Your task to perform on an android device: open chrome privacy settings Image 0: 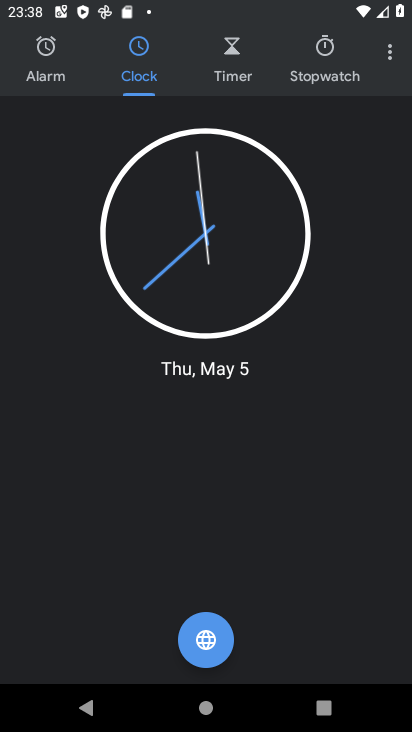
Step 0: press home button
Your task to perform on an android device: open chrome privacy settings Image 1: 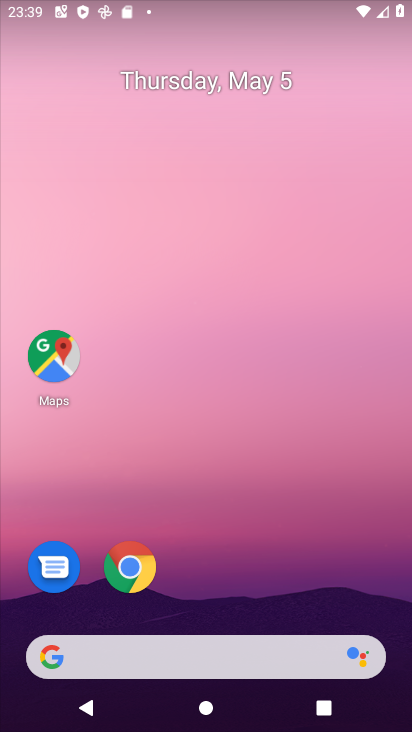
Step 1: click (130, 560)
Your task to perform on an android device: open chrome privacy settings Image 2: 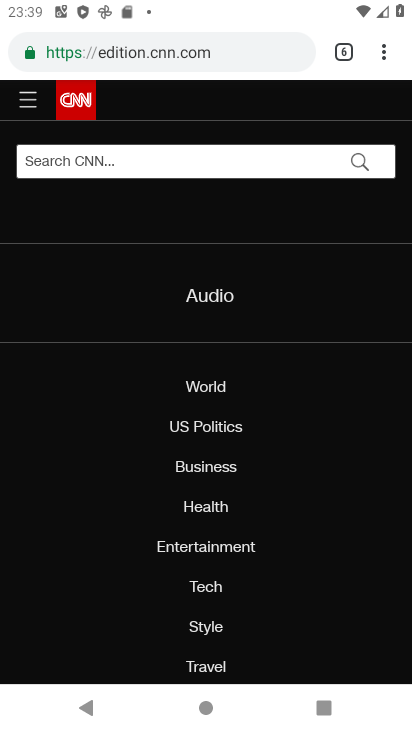
Step 2: click (380, 46)
Your task to perform on an android device: open chrome privacy settings Image 3: 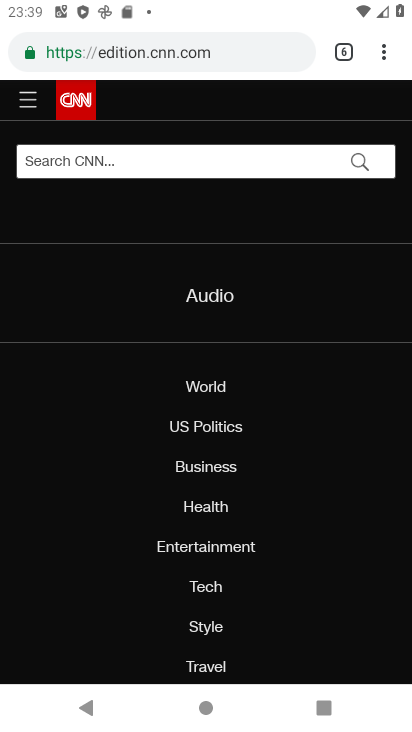
Step 3: click (378, 50)
Your task to perform on an android device: open chrome privacy settings Image 4: 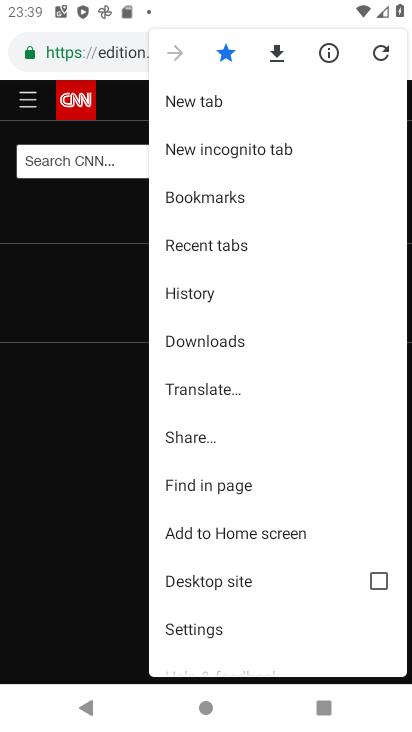
Step 4: click (187, 628)
Your task to perform on an android device: open chrome privacy settings Image 5: 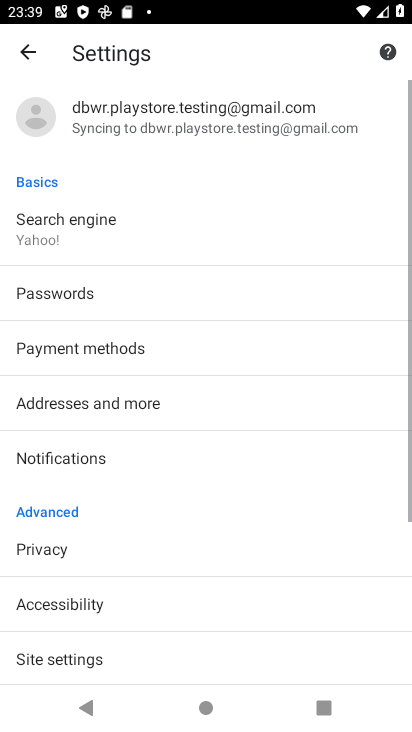
Step 5: click (70, 546)
Your task to perform on an android device: open chrome privacy settings Image 6: 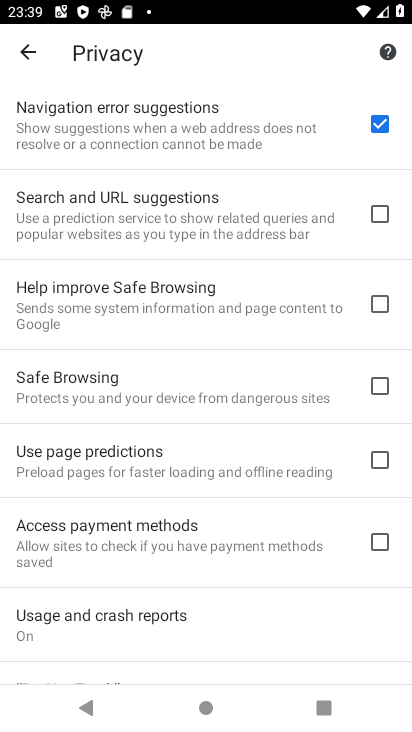
Step 6: task complete